Your task to perform on an android device: Open Wikipedia Image 0: 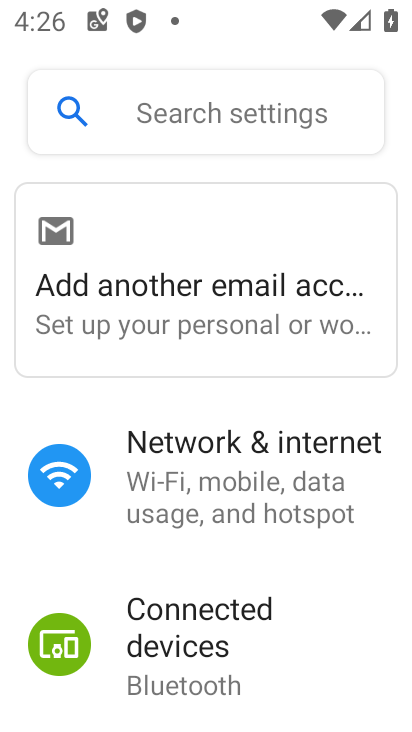
Step 0: press home button
Your task to perform on an android device: Open Wikipedia Image 1: 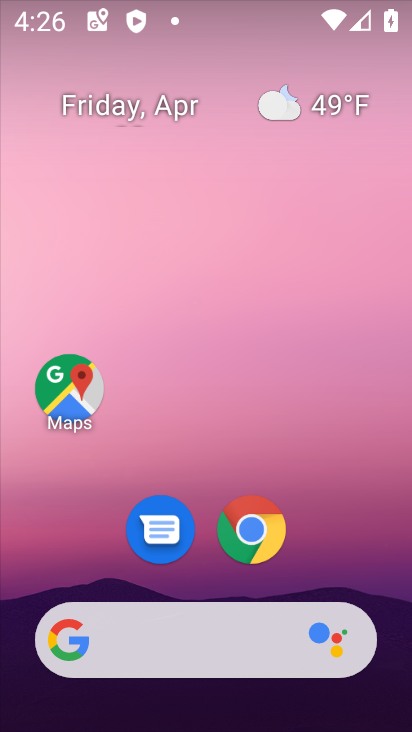
Step 1: click (252, 528)
Your task to perform on an android device: Open Wikipedia Image 2: 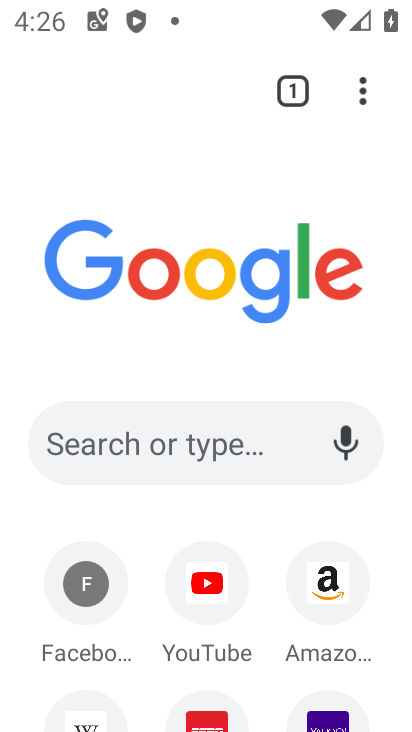
Step 2: click (80, 715)
Your task to perform on an android device: Open Wikipedia Image 3: 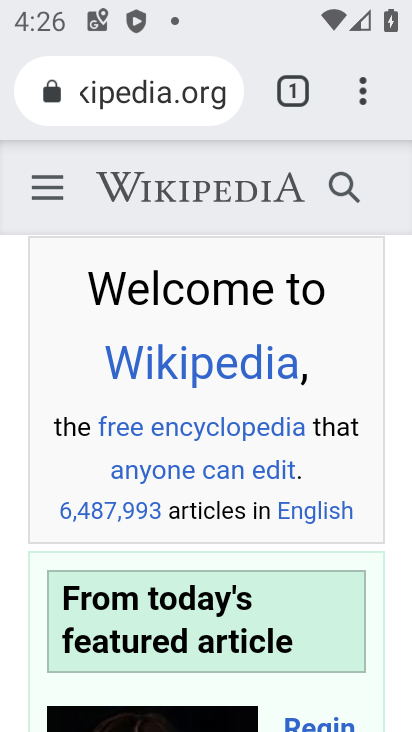
Step 3: task complete